Your task to perform on an android device: manage bookmarks in the chrome app Image 0: 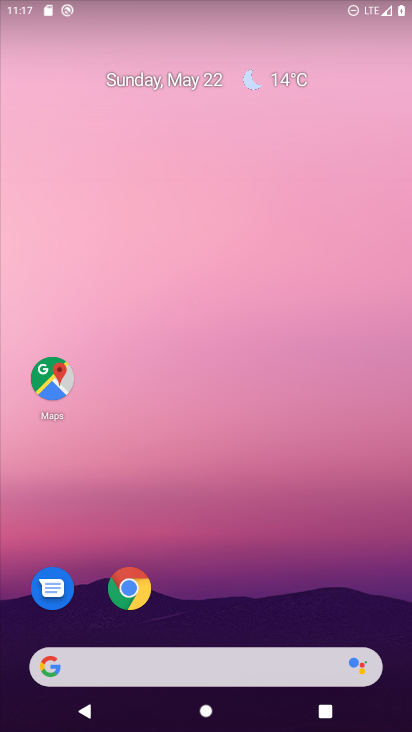
Step 0: click (133, 582)
Your task to perform on an android device: manage bookmarks in the chrome app Image 1: 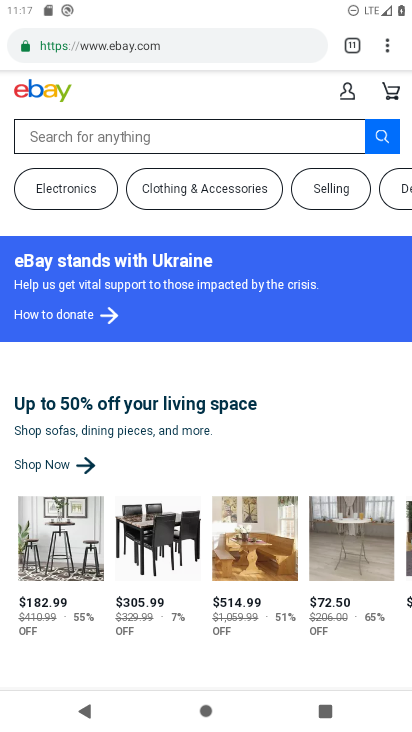
Step 1: click (387, 49)
Your task to perform on an android device: manage bookmarks in the chrome app Image 2: 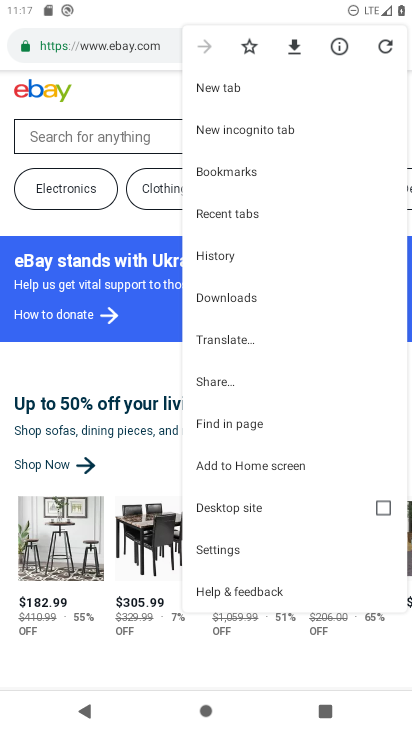
Step 2: click (244, 172)
Your task to perform on an android device: manage bookmarks in the chrome app Image 3: 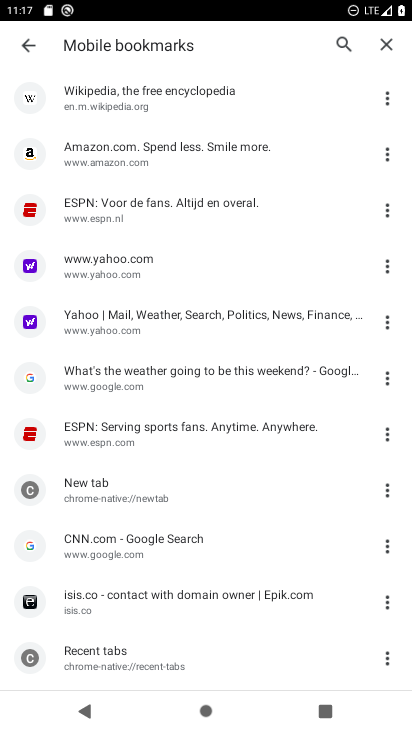
Step 3: click (383, 206)
Your task to perform on an android device: manage bookmarks in the chrome app Image 4: 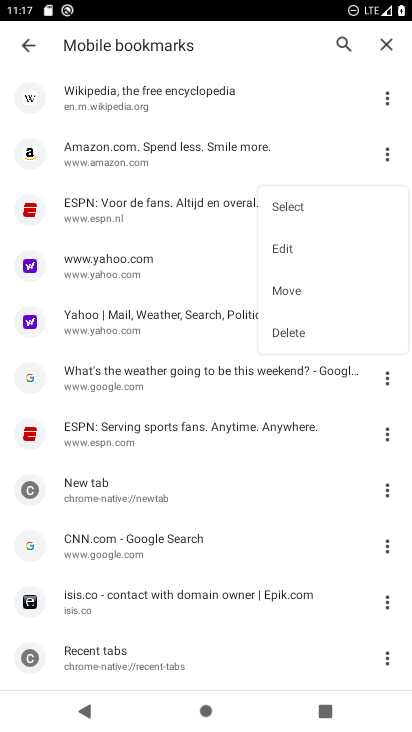
Step 4: click (298, 332)
Your task to perform on an android device: manage bookmarks in the chrome app Image 5: 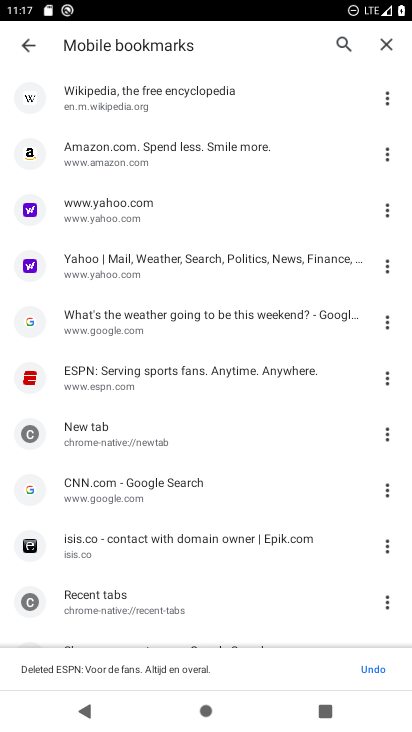
Step 5: task complete